Your task to perform on an android device: What is the recent news? Image 0: 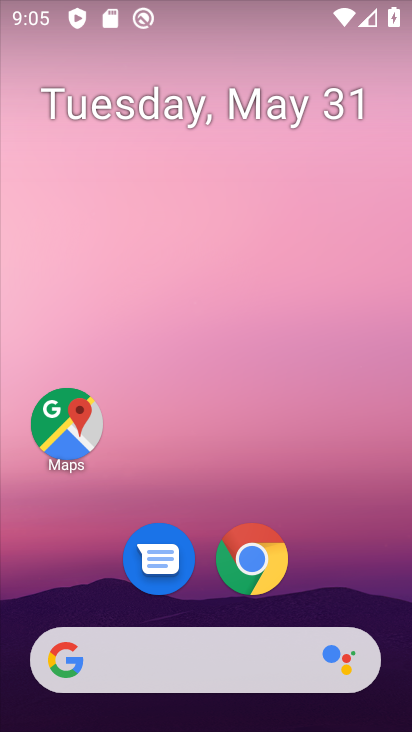
Step 0: drag from (339, 562) to (303, 66)
Your task to perform on an android device: What is the recent news? Image 1: 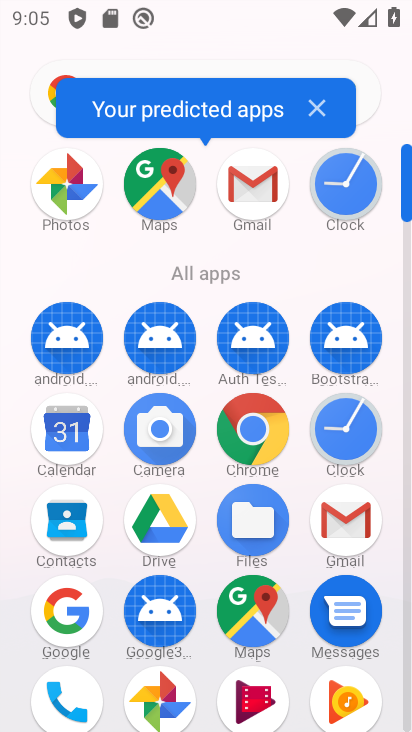
Step 1: click (60, 620)
Your task to perform on an android device: What is the recent news? Image 2: 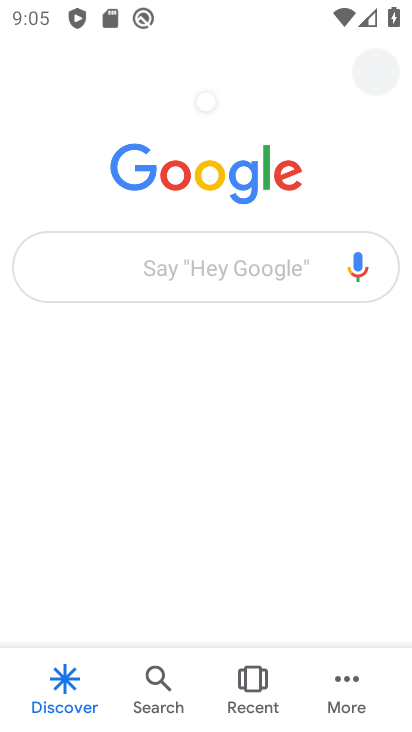
Step 2: click (172, 276)
Your task to perform on an android device: What is the recent news? Image 3: 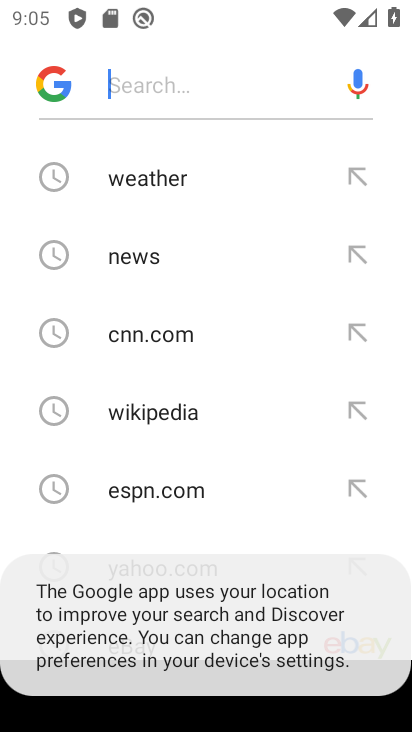
Step 3: drag from (210, 453) to (228, 164)
Your task to perform on an android device: What is the recent news? Image 4: 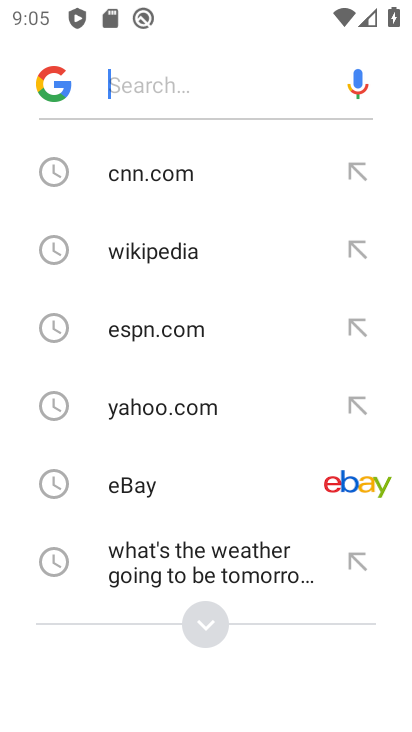
Step 4: click (206, 623)
Your task to perform on an android device: What is the recent news? Image 5: 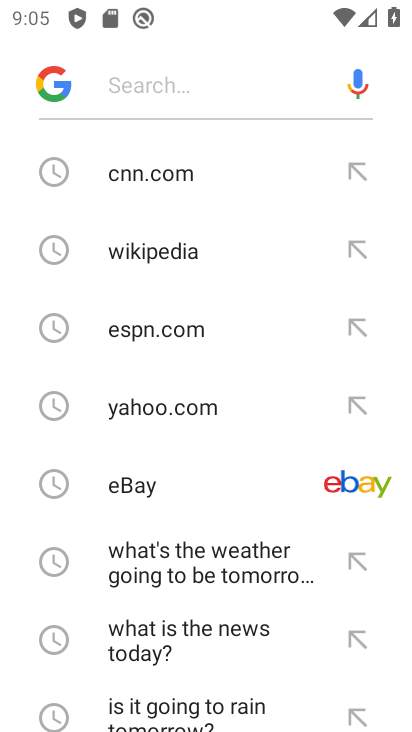
Step 5: drag from (206, 621) to (189, 218)
Your task to perform on an android device: What is the recent news? Image 6: 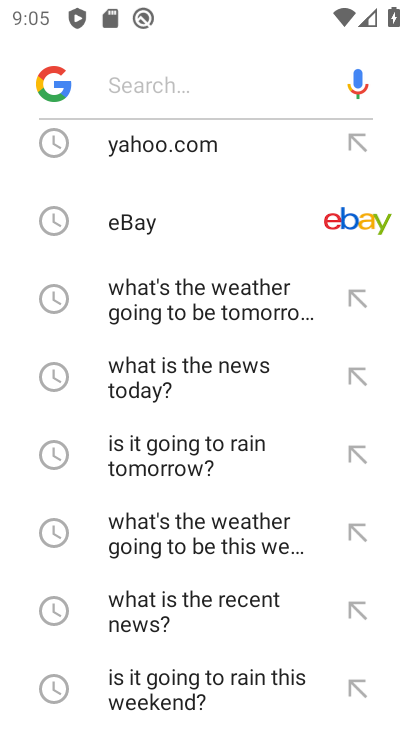
Step 6: click (167, 603)
Your task to perform on an android device: What is the recent news? Image 7: 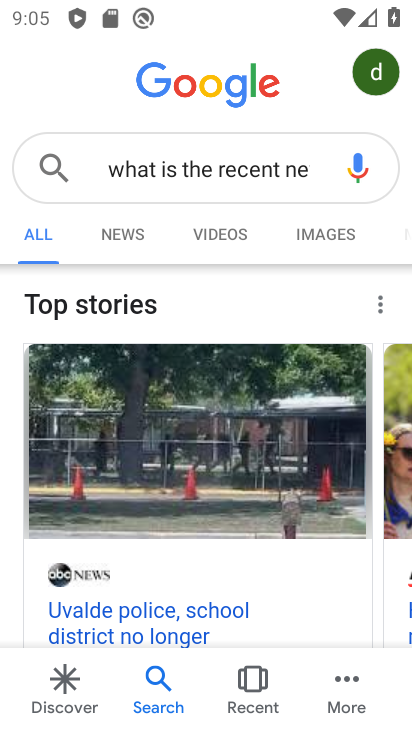
Step 7: task complete